Your task to perform on an android device: Add "usb-a to usb-b" to the cart on walmart.com, then select checkout. Image 0: 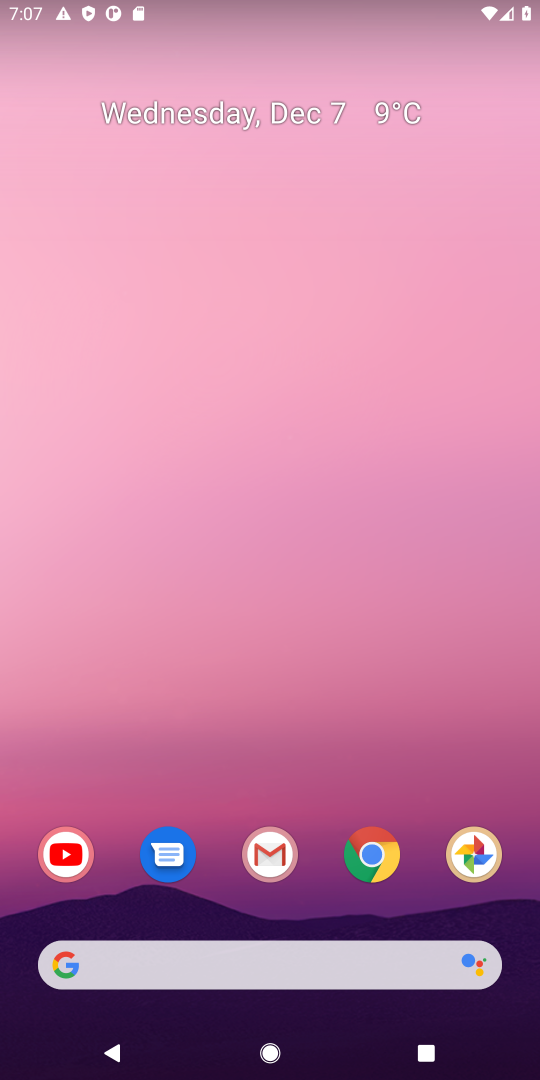
Step 0: click (302, 971)
Your task to perform on an android device: Add "usb-a to usb-b" to the cart on walmart.com, then select checkout. Image 1: 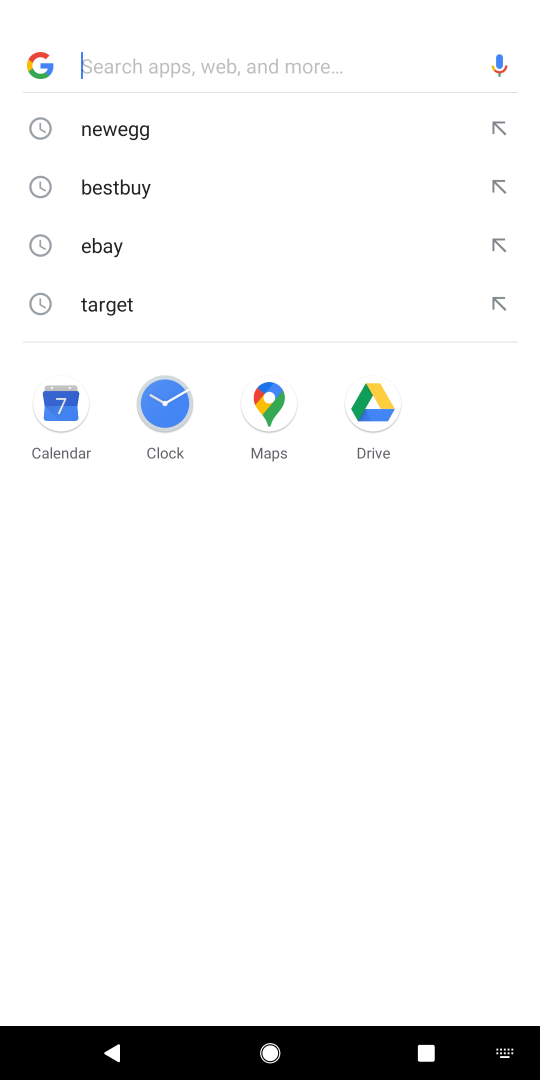
Step 1: type "walmart"
Your task to perform on an android device: Add "usb-a to usb-b" to the cart on walmart.com, then select checkout. Image 2: 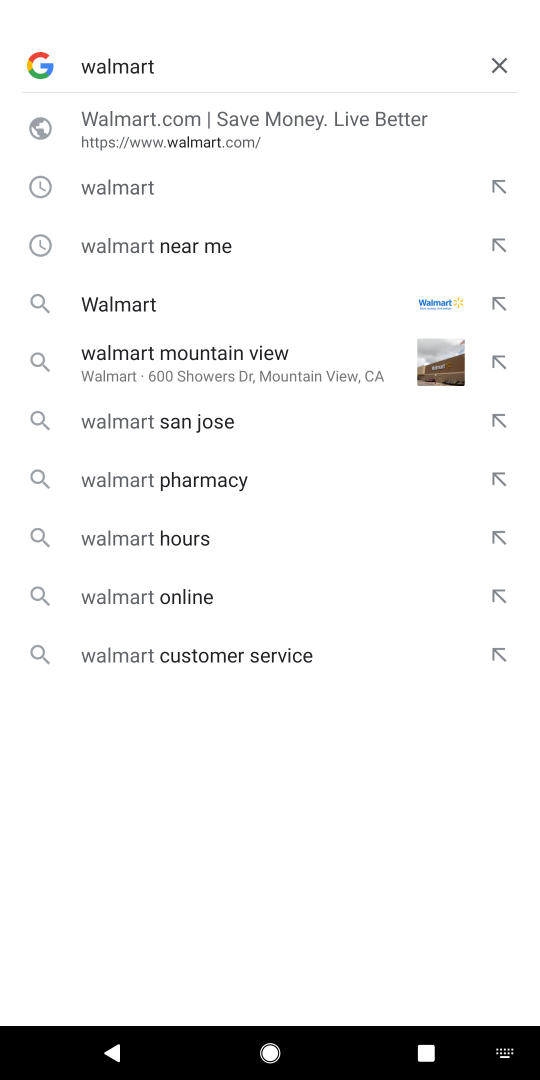
Step 2: click (259, 109)
Your task to perform on an android device: Add "usb-a to usb-b" to the cart on walmart.com, then select checkout. Image 3: 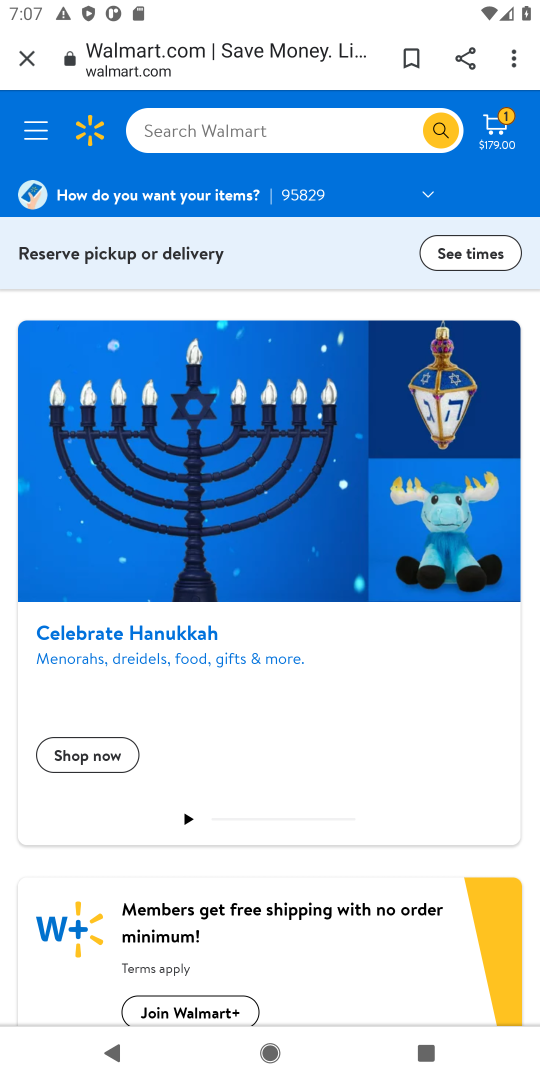
Step 3: click (201, 117)
Your task to perform on an android device: Add "usb-a to usb-b" to the cart on walmart.com, then select checkout. Image 4: 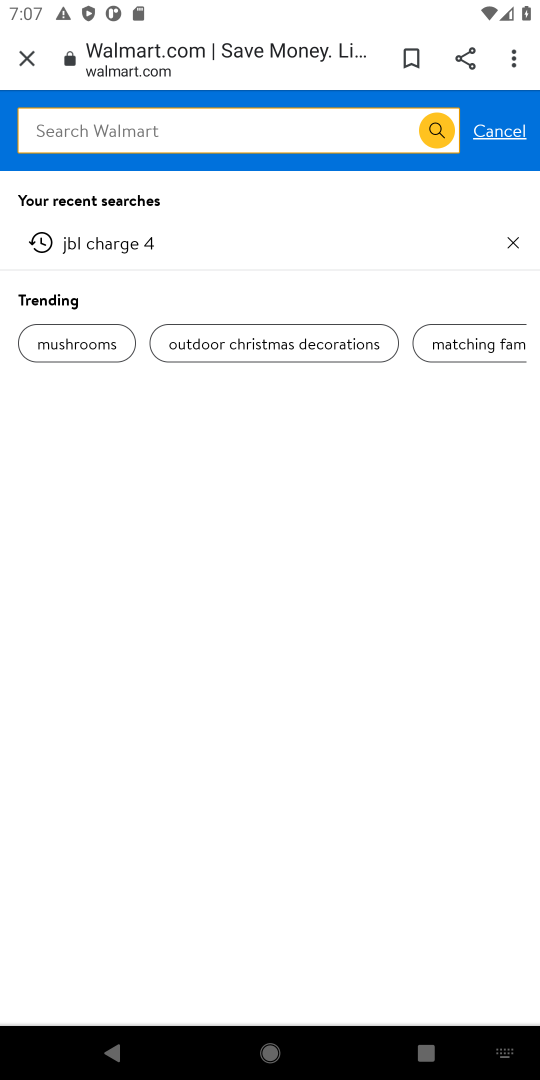
Step 4: type "usb-a to usb-b"
Your task to perform on an android device: Add "usb-a to usb-b" to the cart on walmart.com, then select checkout. Image 5: 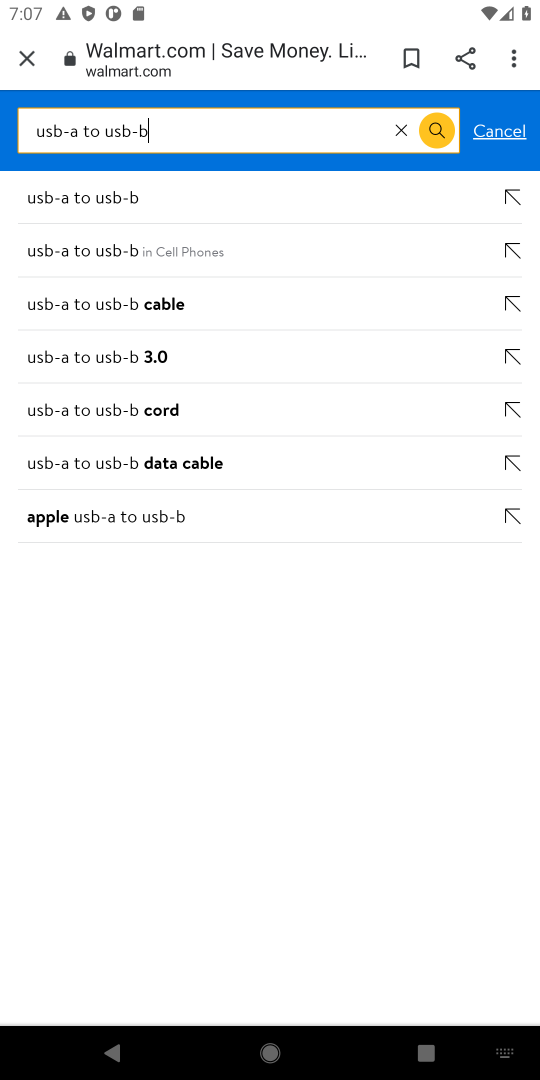
Step 5: click (275, 222)
Your task to perform on an android device: Add "usb-a to usb-b" to the cart on walmart.com, then select checkout. Image 6: 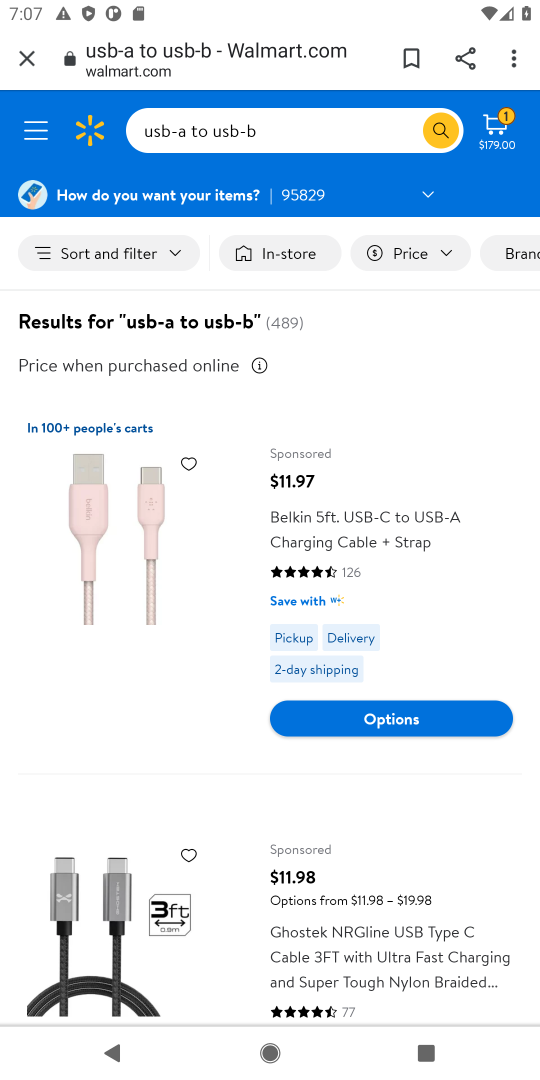
Step 6: click (408, 698)
Your task to perform on an android device: Add "usb-a to usb-b" to the cart on walmart.com, then select checkout. Image 7: 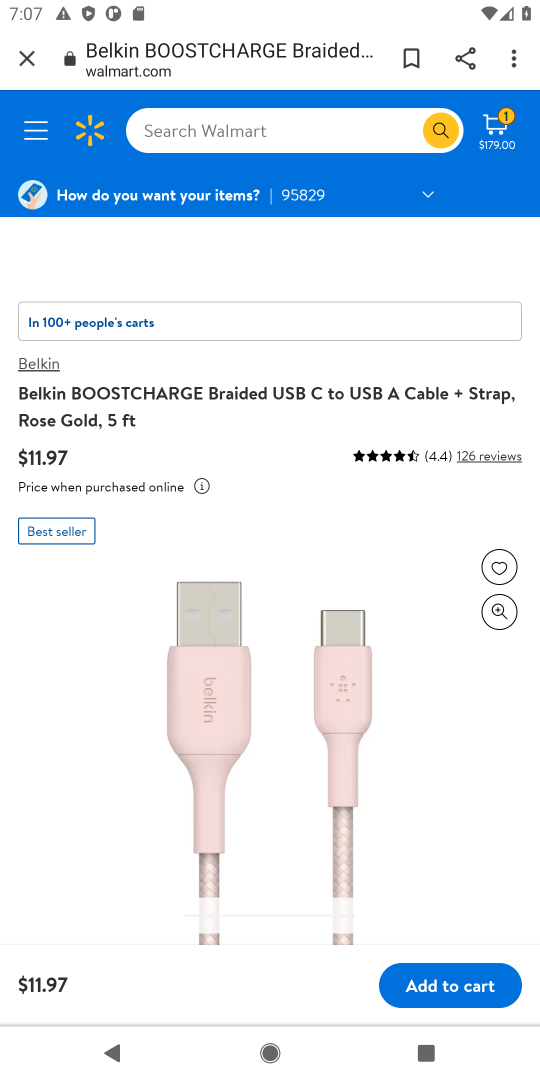
Step 7: click (469, 982)
Your task to perform on an android device: Add "usb-a to usb-b" to the cart on walmart.com, then select checkout. Image 8: 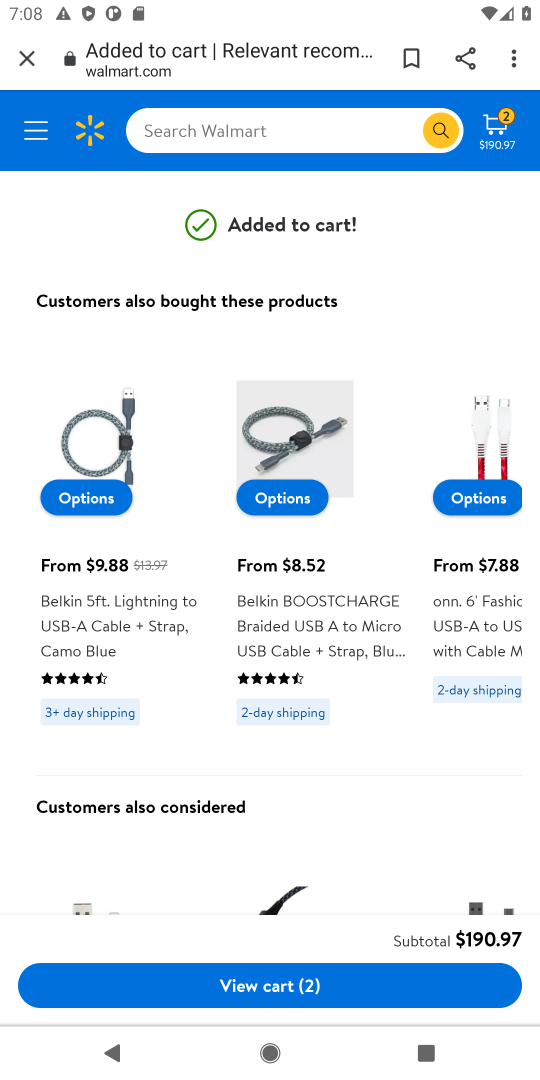
Step 8: task complete